Your task to perform on an android device: Go to Maps Image 0: 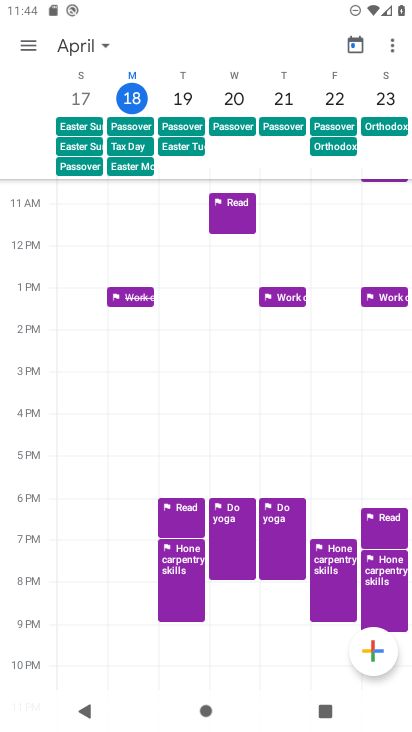
Step 0: press back button
Your task to perform on an android device: Go to Maps Image 1: 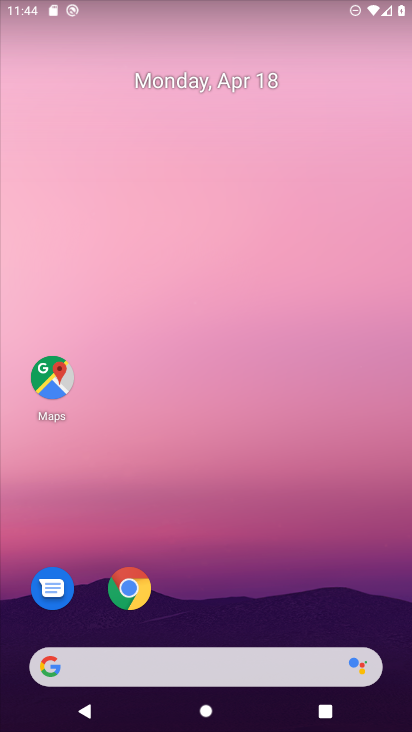
Step 1: drag from (327, 578) to (194, 37)
Your task to perform on an android device: Go to Maps Image 2: 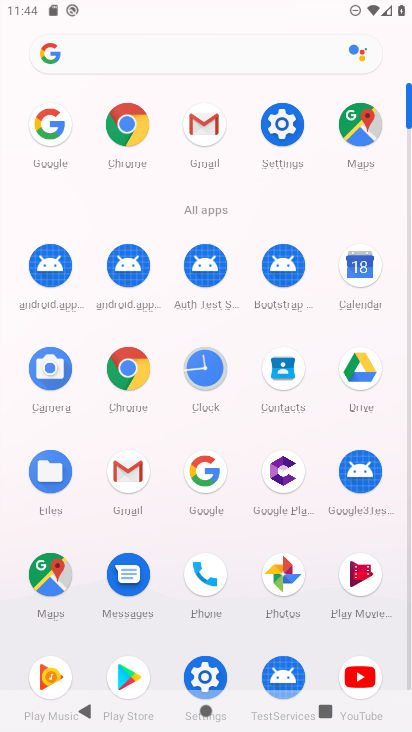
Step 2: click (48, 571)
Your task to perform on an android device: Go to Maps Image 3: 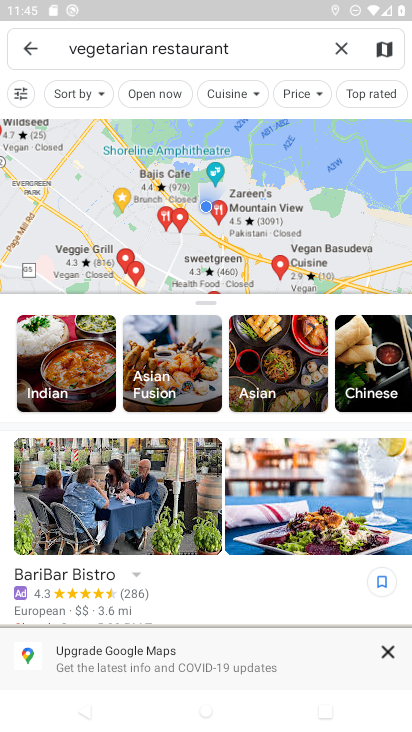
Step 3: click (29, 47)
Your task to perform on an android device: Go to Maps Image 4: 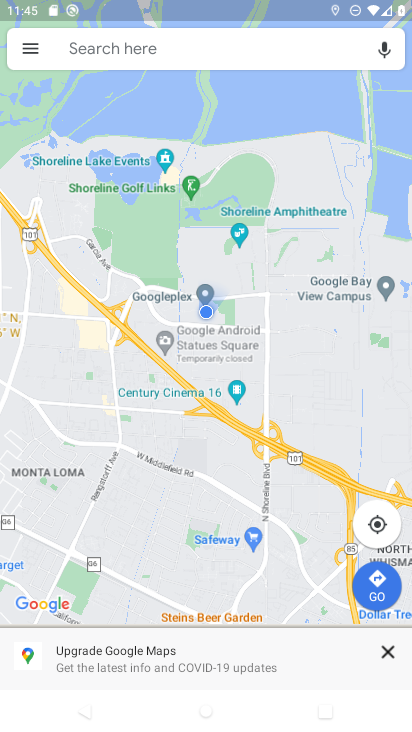
Step 4: task complete